Your task to perform on an android device: change the clock display to digital Image 0: 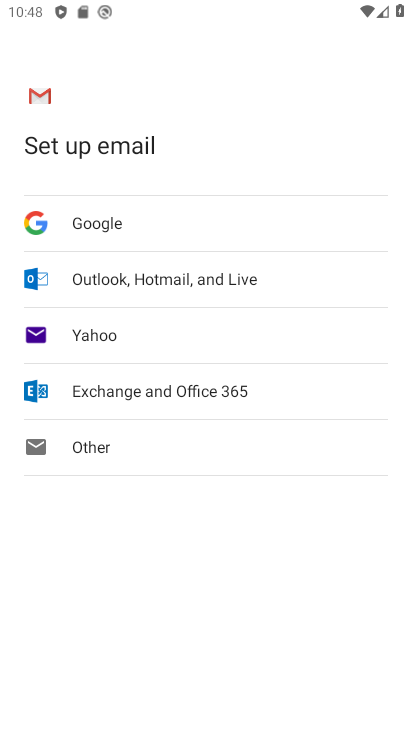
Step 0: press back button
Your task to perform on an android device: change the clock display to digital Image 1: 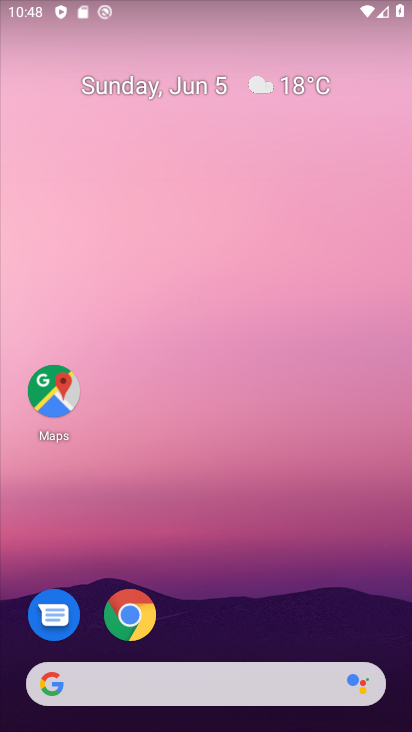
Step 1: drag from (273, 577) to (228, 98)
Your task to perform on an android device: change the clock display to digital Image 2: 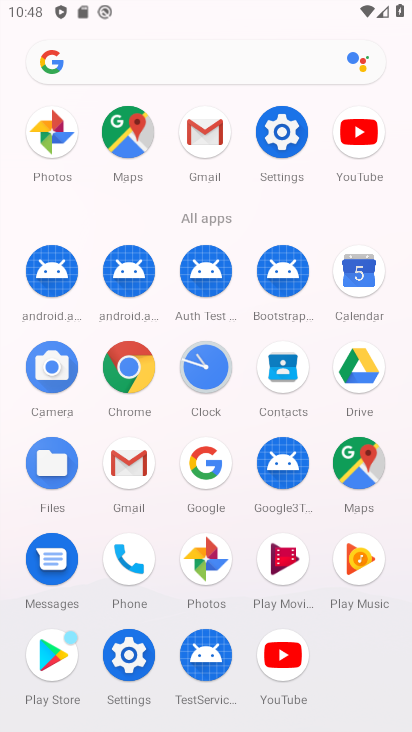
Step 2: click (206, 366)
Your task to perform on an android device: change the clock display to digital Image 3: 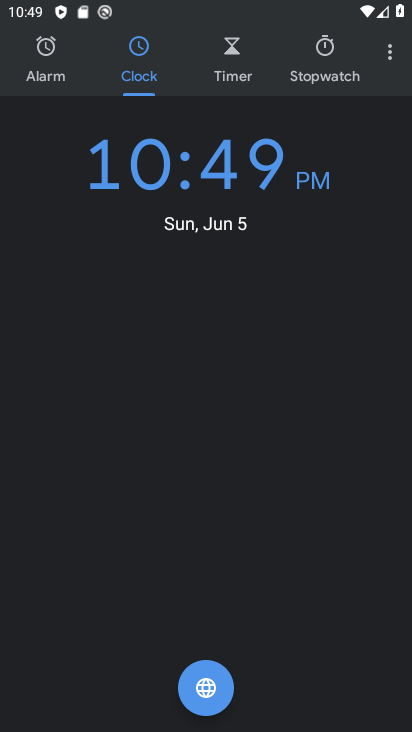
Step 3: click (390, 53)
Your task to perform on an android device: change the clock display to digital Image 4: 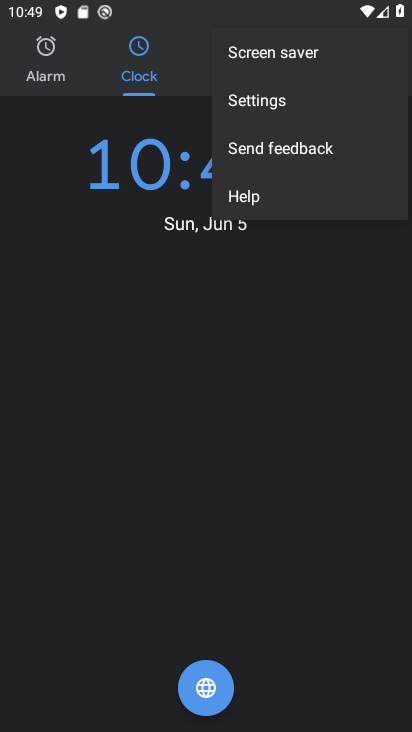
Step 4: click (268, 105)
Your task to perform on an android device: change the clock display to digital Image 5: 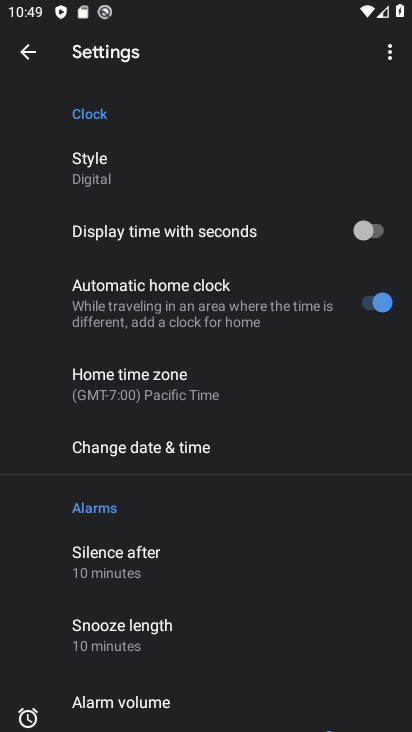
Step 5: click (112, 176)
Your task to perform on an android device: change the clock display to digital Image 6: 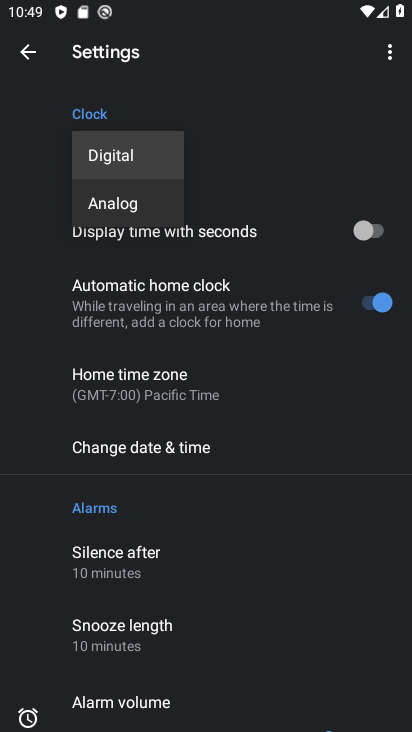
Step 6: click (118, 171)
Your task to perform on an android device: change the clock display to digital Image 7: 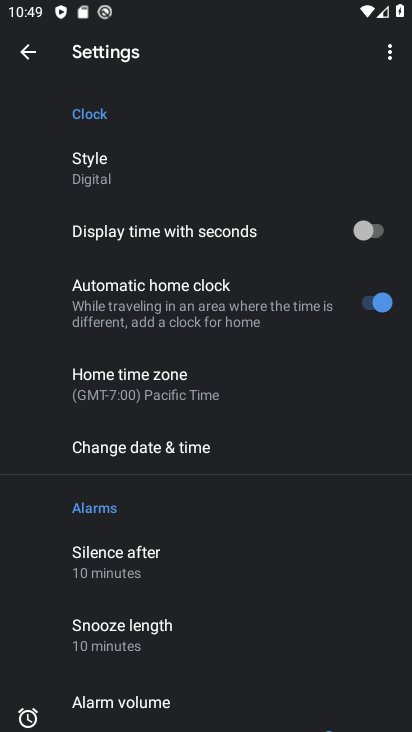
Step 7: task complete